Your task to perform on an android device: When is my next appointment? Image 0: 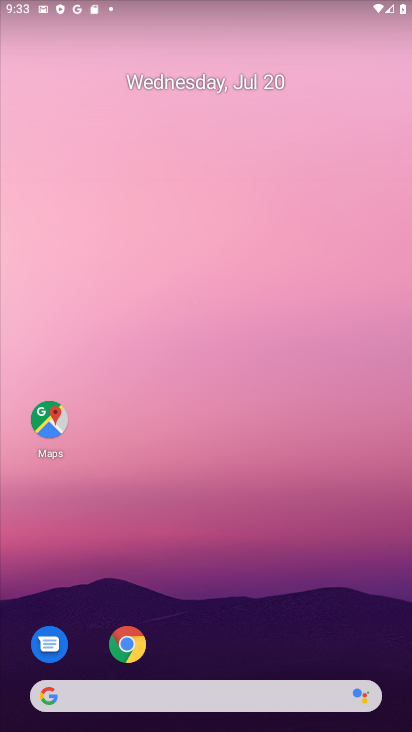
Step 0: drag from (237, 552) to (250, 290)
Your task to perform on an android device: When is my next appointment? Image 1: 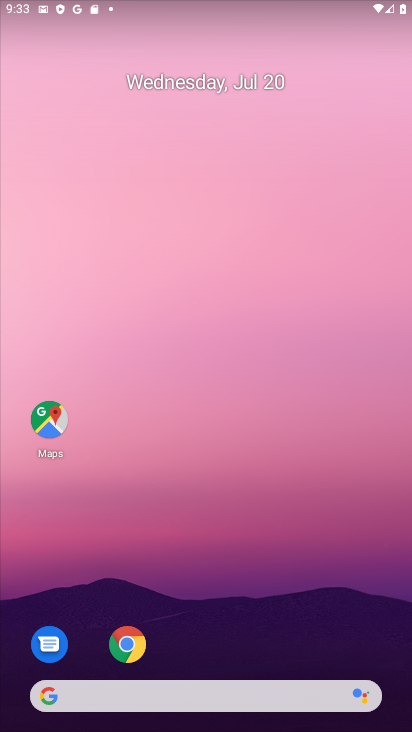
Step 1: drag from (233, 495) to (267, 148)
Your task to perform on an android device: When is my next appointment? Image 2: 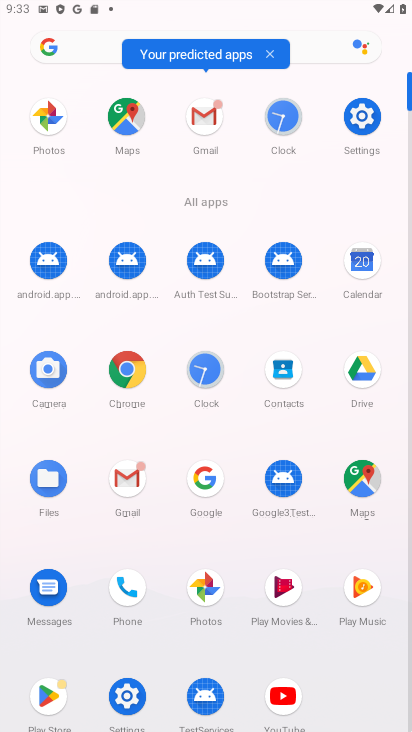
Step 2: click (364, 265)
Your task to perform on an android device: When is my next appointment? Image 3: 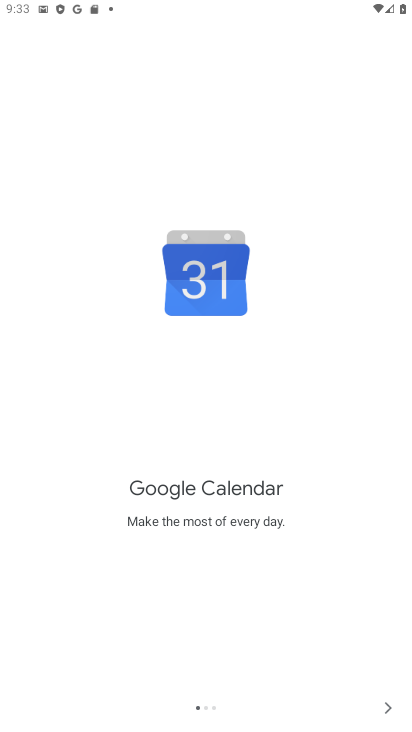
Step 3: click (383, 704)
Your task to perform on an android device: When is my next appointment? Image 4: 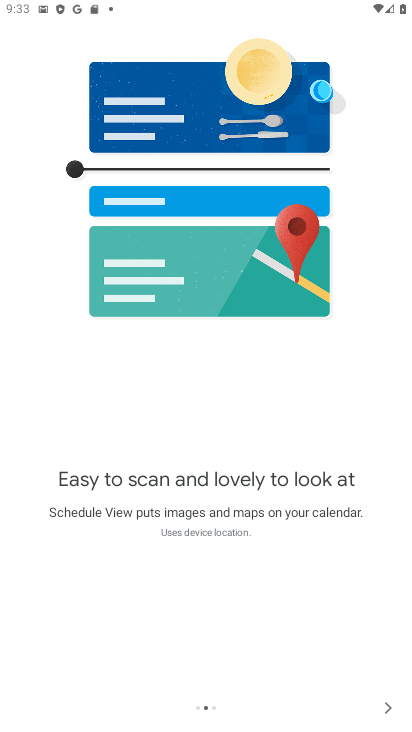
Step 4: click (389, 709)
Your task to perform on an android device: When is my next appointment? Image 5: 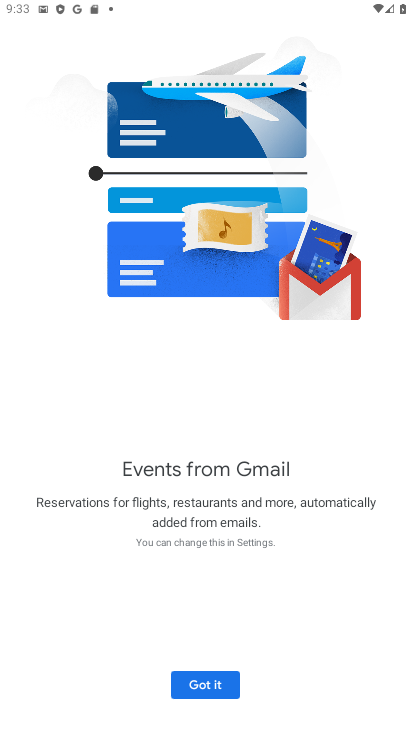
Step 5: click (389, 709)
Your task to perform on an android device: When is my next appointment? Image 6: 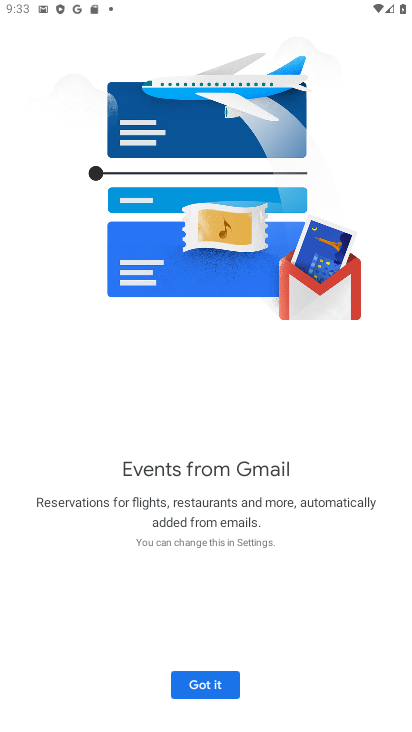
Step 6: click (200, 690)
Your task to perform on an android device: When is my next appointment? Image 7: 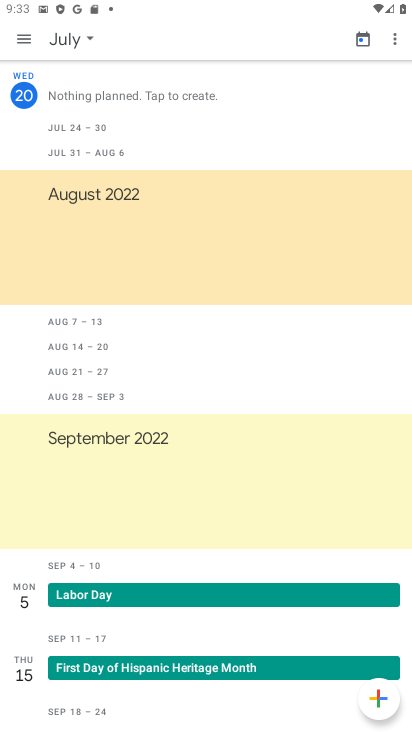
Step 7: task complete